Your task to perform on an android device: Open maps Image 0: 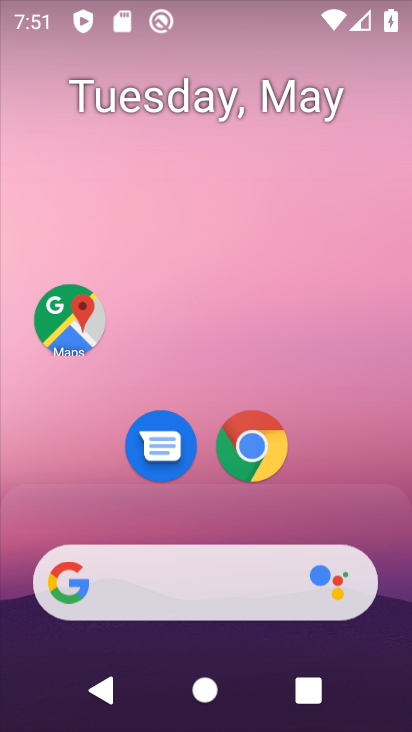
Step 0: click (88, 311)
Your task to perform on an android device: Open maps Image 1: 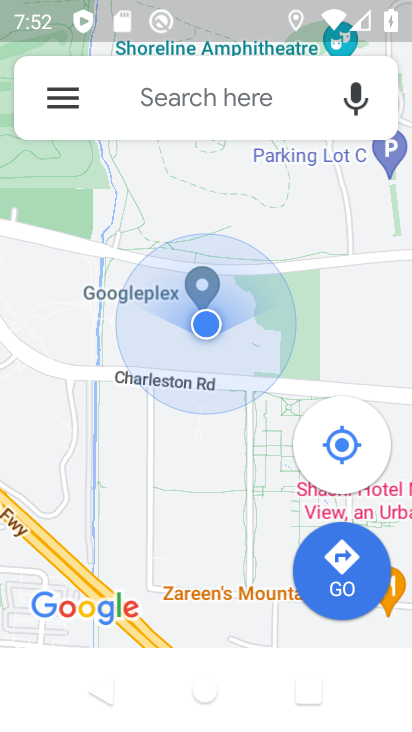
Step 1: task complete